Your task to perform on an android device: read, delete, or share a saved page in the chrome app Image 0: 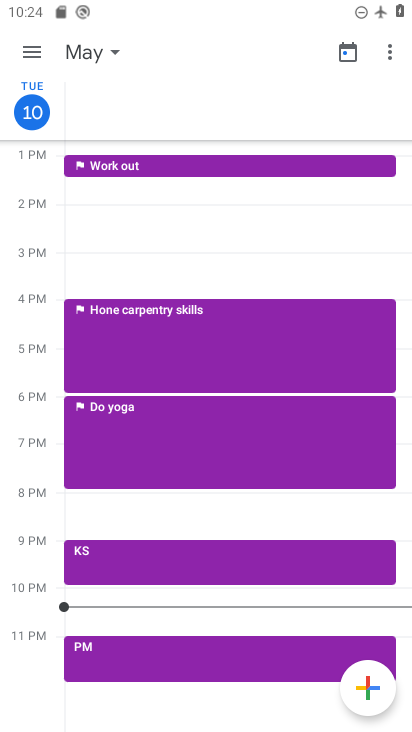
Step 0: drag from (211, 642) to (264, 159)
Your task to perform on an android device: read, delete, or share a saved page in the chrome app Image 1: 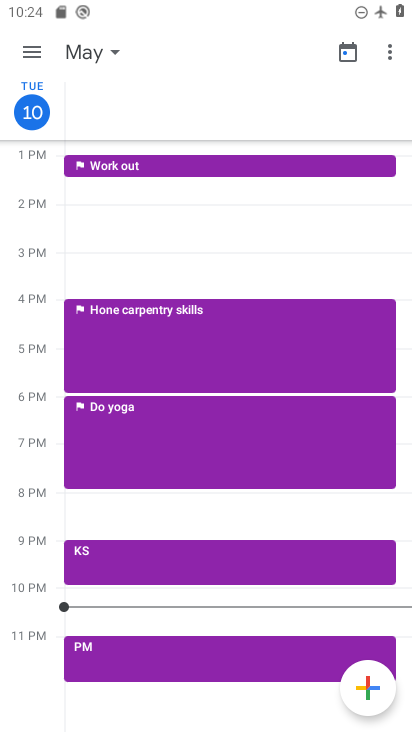
Step 1: press home button
Your task to perform on an android device: read, delete, or share a saved page in the chrome app Image 2: 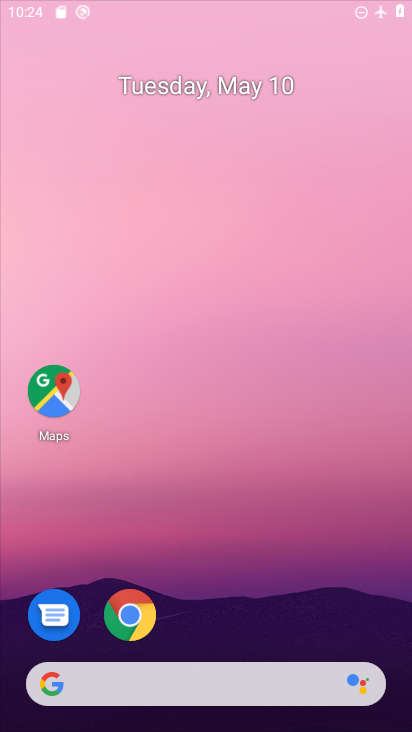
Step 2: drag from (238, 651) to (284, 260)
Your task to perform on an android device: read, delete, or share a saved page in the chrome app Image 3: 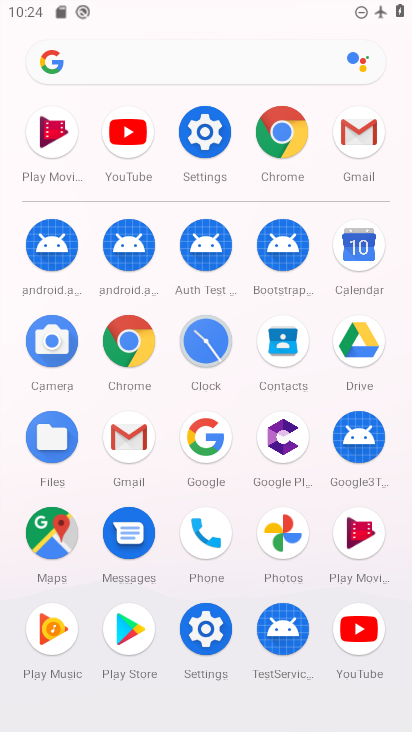
Step 3: click (124, 336)
Your task to perform on an android device: read, delete, or share a saved page in the chrome app Image 4: 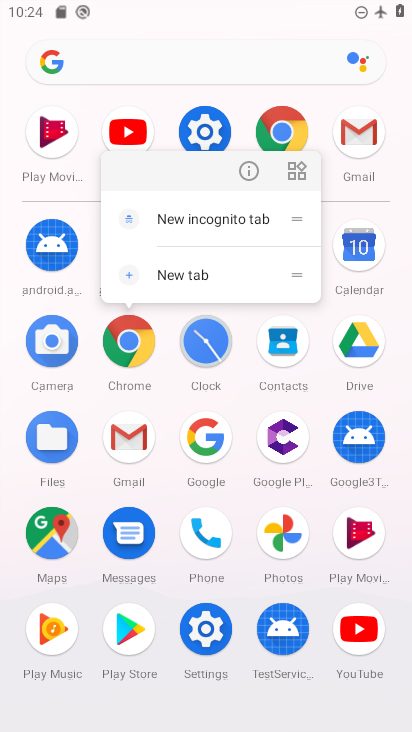
Step 4: click (239, 177)
Your task to perform on an android device: read, delete, or share a saved page in the chrome app Image 5: 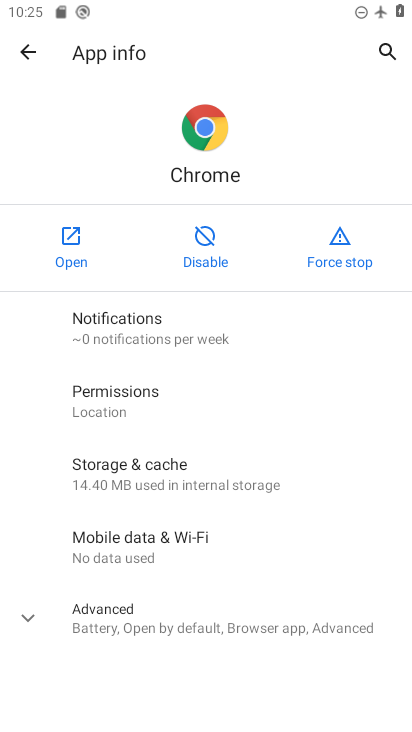
Step 5: click (73, 253)
Your task to perform on an android device: read, delete, or share a saved page in the chrome app Image 6: 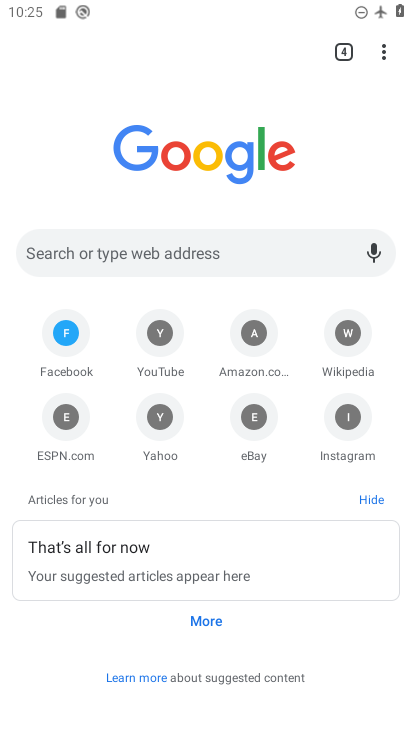
Step 6: drag from (219, 600) to (298, 186)
Your task to perform on an android device: read, delete, or share a saved page in the chrome app Image 7: 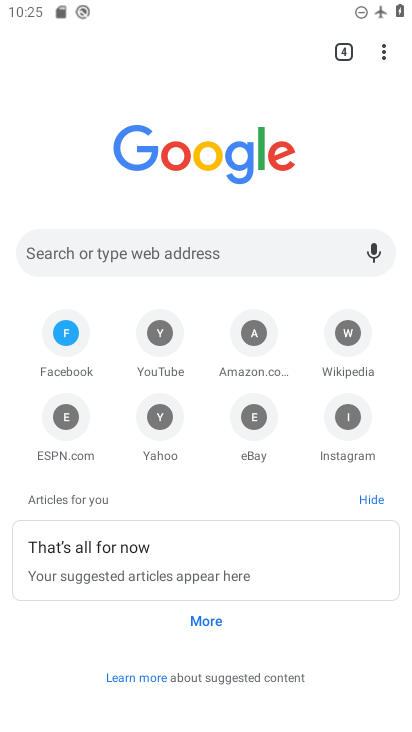
Step 7: drag from (293, 174) to (294, 594)
Your task to perform on an android device: read, delete, or share a saved page in the chrome app Image 8: 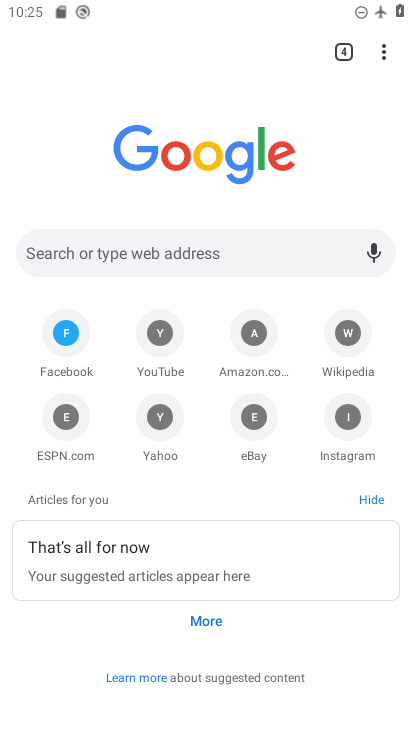
Step 8: drag from (299, 123) to (308, 505)
Your task to perform on an android device: read, delete, or share a saved page in the chrome app Image 9: 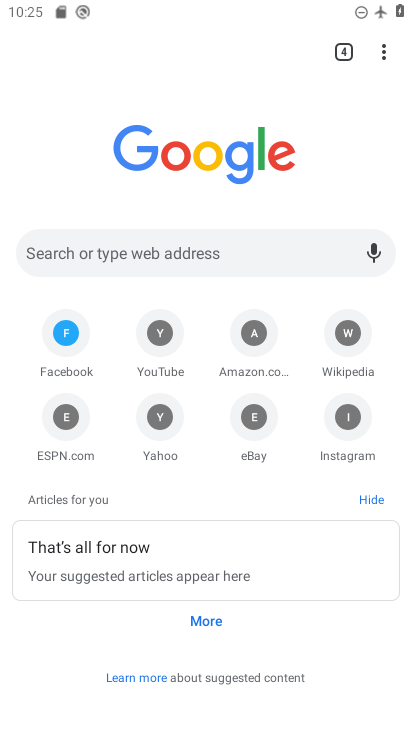
Step 9: click (343, 166)
Your task to perform on an android device: read, delete, or share a saved page in the chrome app Image 10: 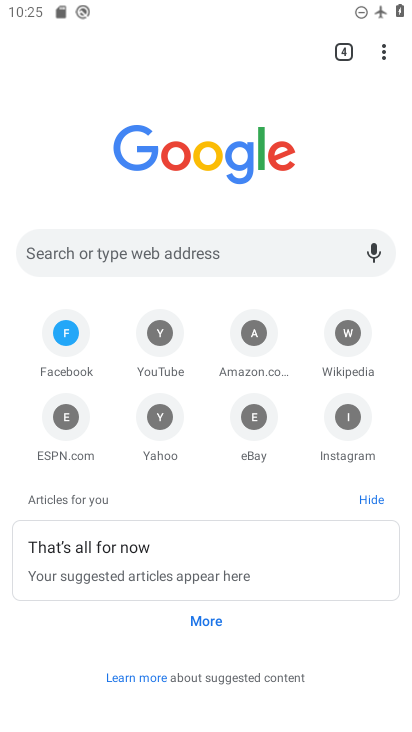
Step 10: click (390, 55)
Your task to perform on an android device: read, delete, or share a saved page in the chrome app Image 11: 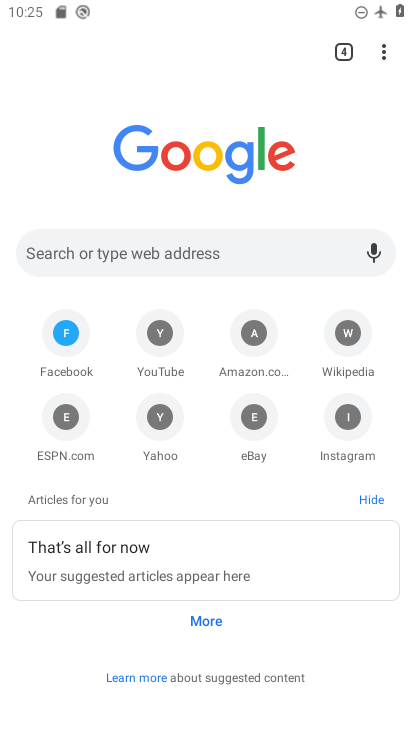
Step 11: task complete